Your task to perform on an android device: Open the map Image 0: 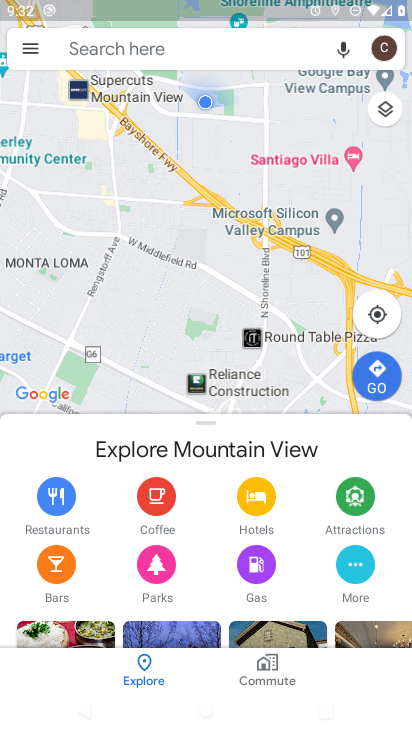
Step 0: task complete